Your task to perform on an android device: turn on improve location accuracy Image 0: 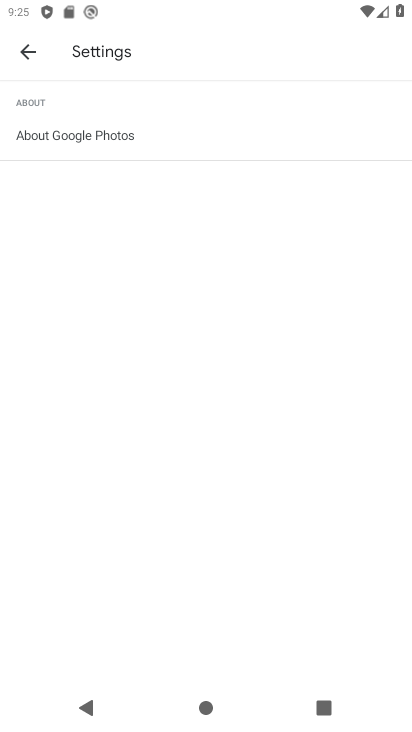
Step 0: press home button
Your task to perform on an android device: turn on improve location accuracy Image 1: 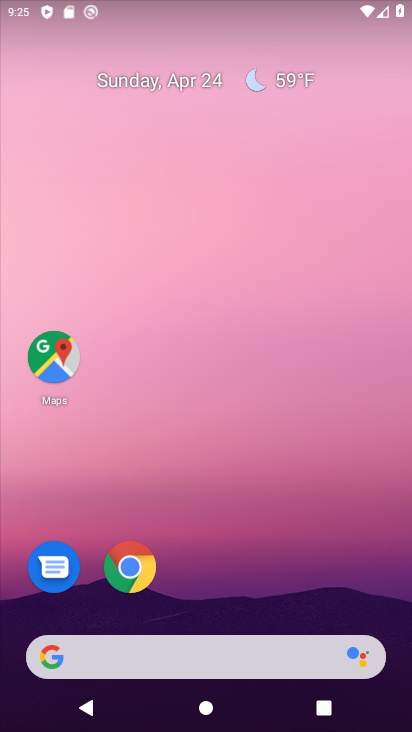
Step 1: click (345, 130)
Your task to perform on an android device: turn on improve location accuracy Image 2: 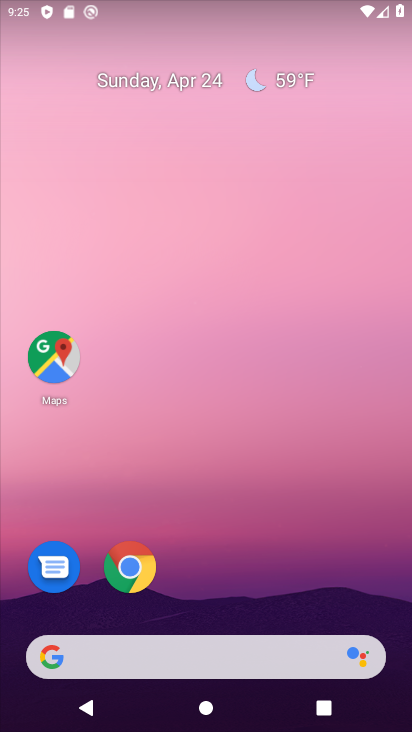
Step 2: drag from (378, 435) to (374, 206)
Your task to perform on an android device: turn on improve location accuracy Image 3: 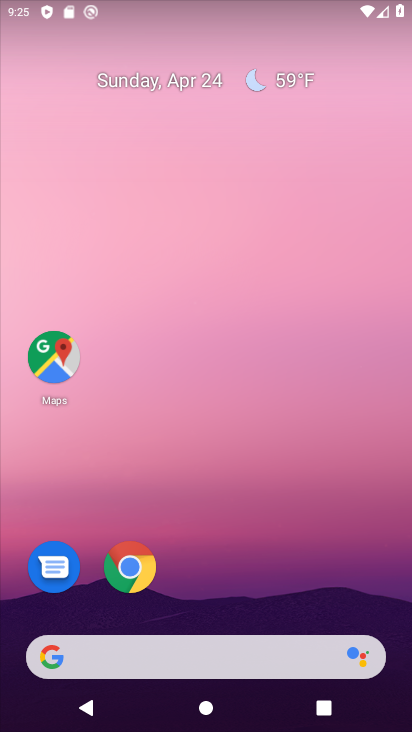
Step 3: drag from (392, 642) to (355, 100)
Your task to perform on an android device: turn on improve location accuracy Image 4: 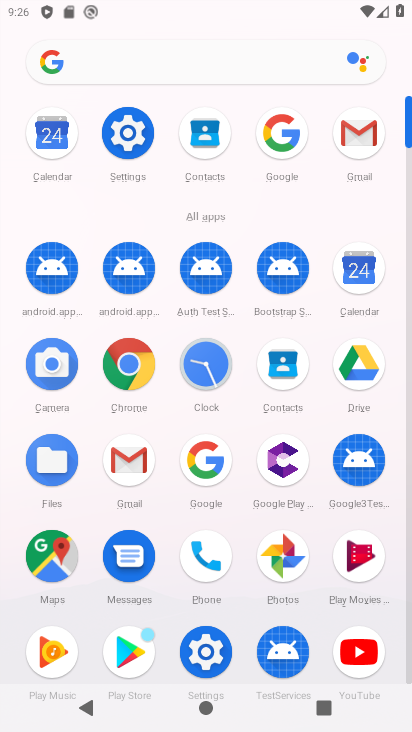
Step 4: click (110, 128)
Your task to perform on an android device: turn on improve location accuracy Image 5: 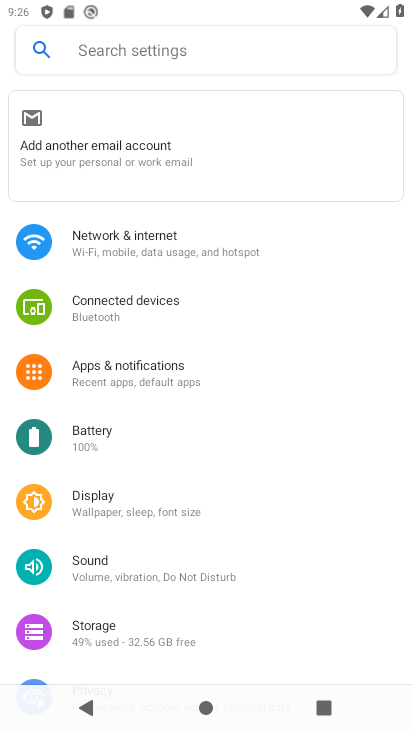
Step 5: drag from (349, 317) to (349, 211)
Your task to perform on an android device: turn on improve location accuracy Image 6: 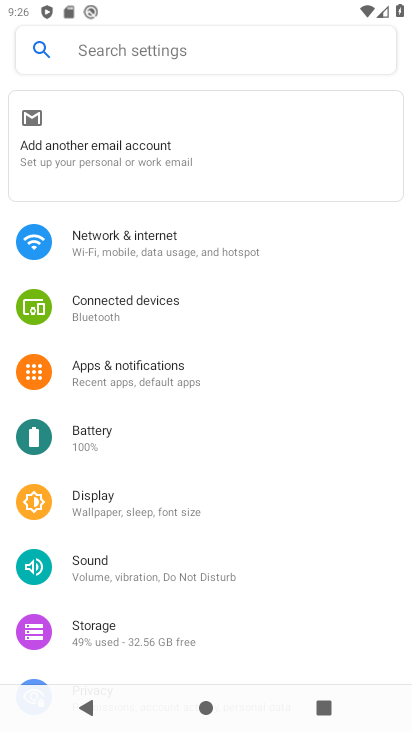
Step 6: drag from (298, 623) to (320, 268)
Your task to perform on an android device: turn on improve location accuracy Image 7: 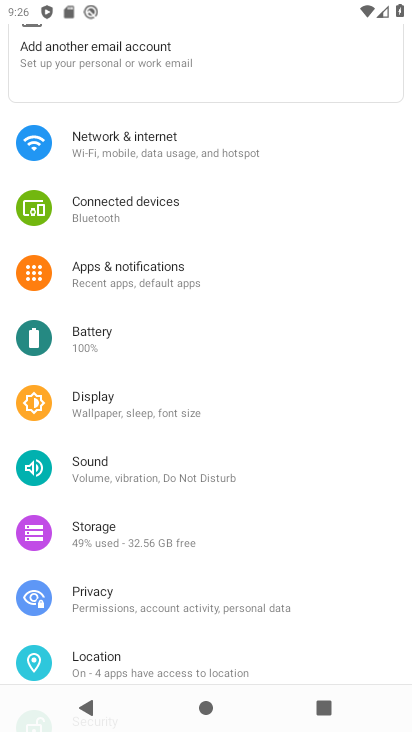
Step 7: click (86, 657)
Your task to perform on an android device: turn on improve location accuracy Image 8: 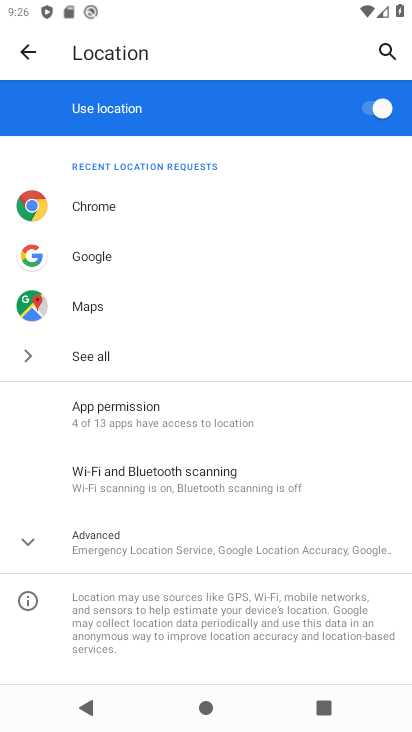
Step 8: click (16, 542)
Your task to perform on an android device: turn on improve location accuracy Image 9: 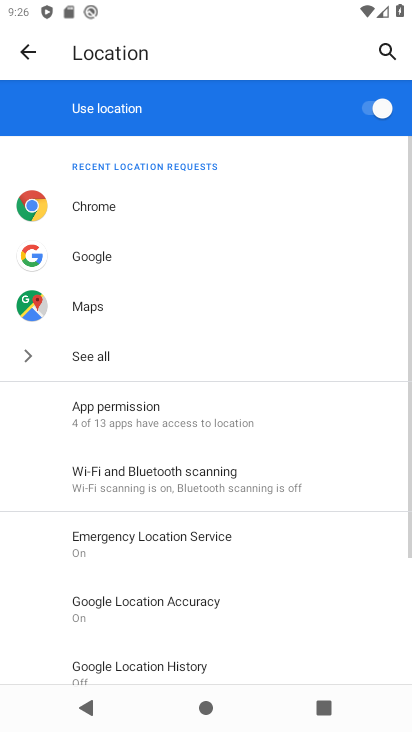
Step 9: drag from (308, 541) to (347, 267)
Your task to perform on an android device: turn on improve location accuracy Image 10: 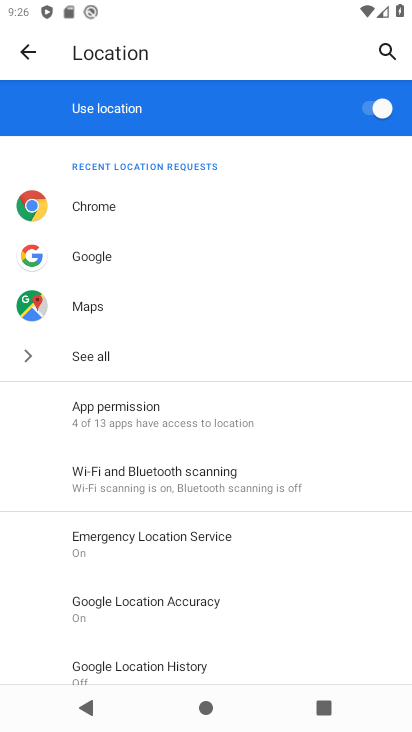
Step 10: drag from (339, 624) to (362, 262)
Your task to perform on an android device: turn on improve location accuracy Image 11: 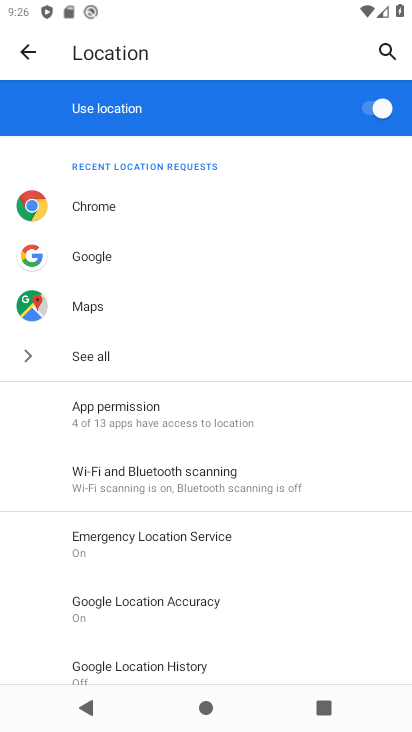
Step 11: click (348, 310)
Your task to perform on an android device: turn on improve location accuracy Image 12: 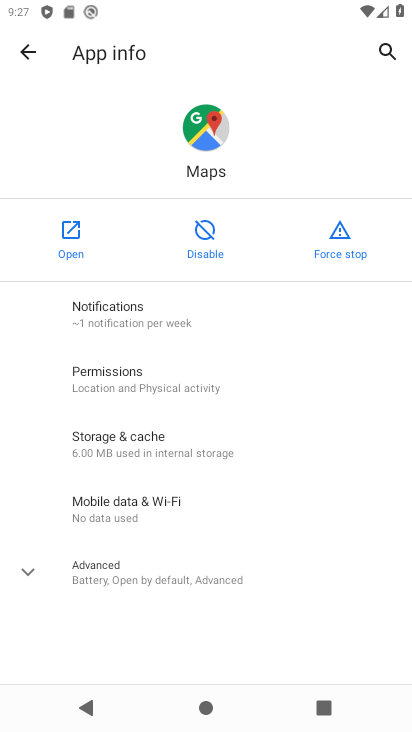
Step 12: click (74, 565)
Your task to perform on an android device: turn on improve location accuracy Image 13: 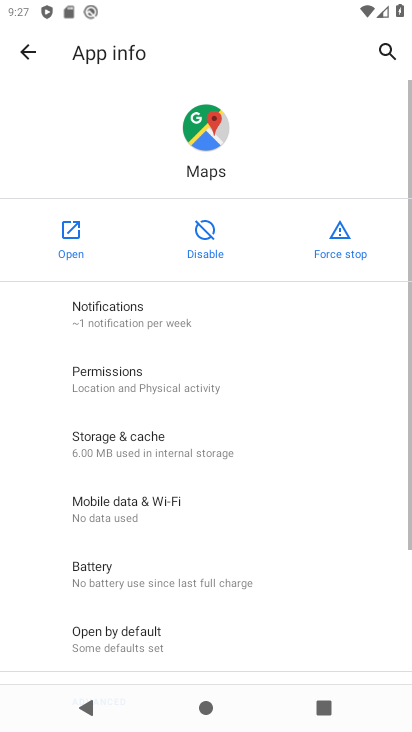
Step 13: drag from (373, 635) to (377, 356)
Your task to perform on an android device: turn on improve location accuracy Image 14: 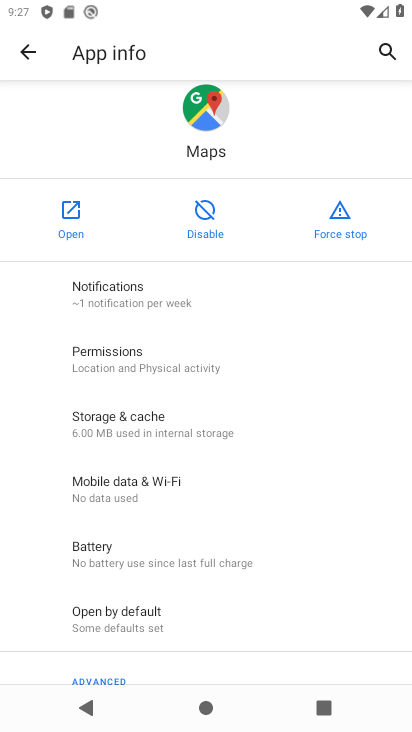
Step 14: drag from (383, 416) to (383, 340)
Your task to perform on an android device: turn on improve location accuracy Image 15: 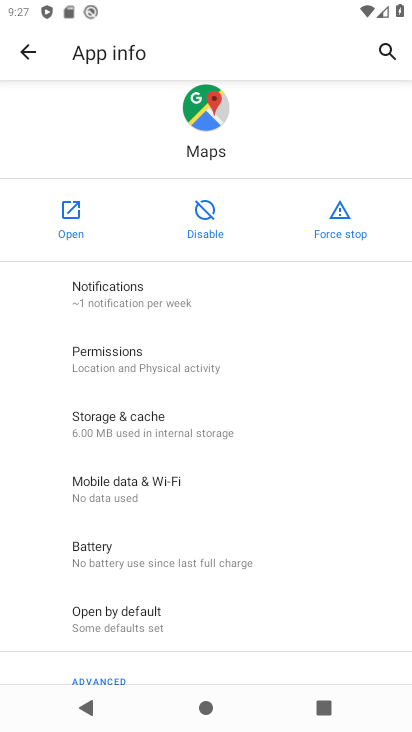
Step 15: drag from (322, 603) to (326, 365)
Your task to perform on an android device: turn on improve location accuracy Image 16: 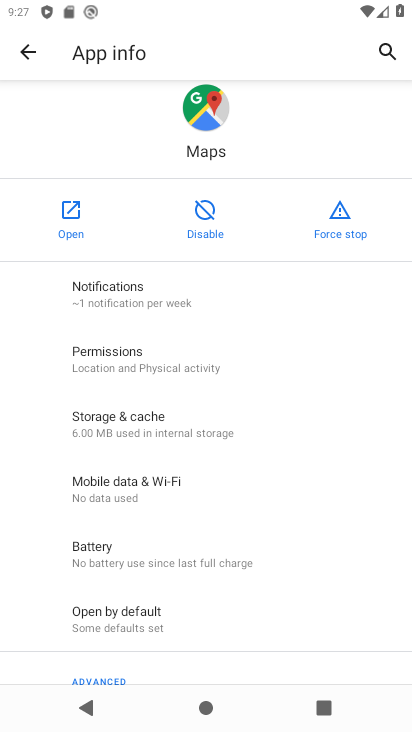
Step 16: drag from (307, 240) to (308, 203)
Your task to perform on an android device: turn on improve location accuracy Image 17: 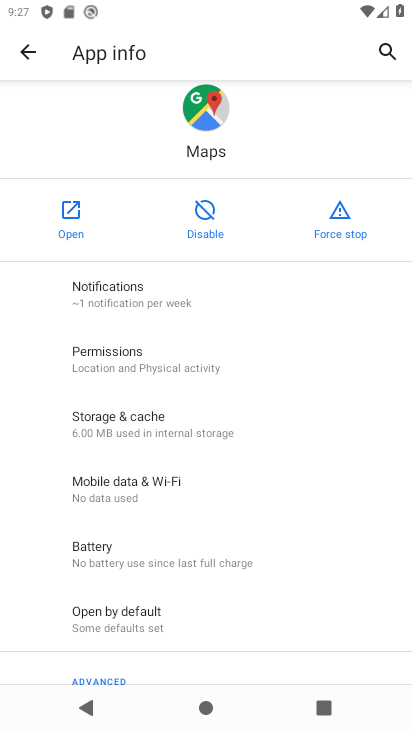
Step 17: drag from (358, 615) to (387, 356)
Your task to perform on an android device: turn on improve location accuracy Image 18: 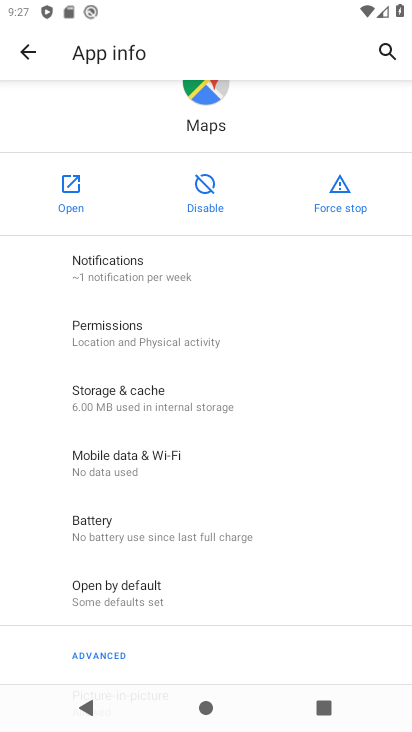
Step 18: click (99, 649)
Your task to perform on an android device: turn on improve location accuracy Image 19: 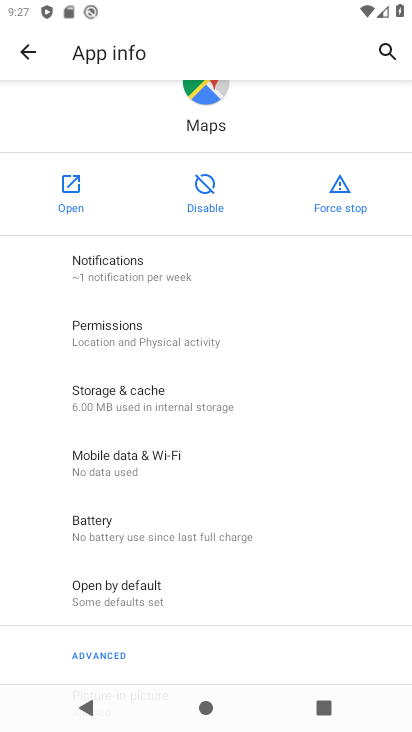
Step 19: drag from (372, 437) to (374, 396)
Your task to perform on an android device: turn on improve location accuracy Image 20: 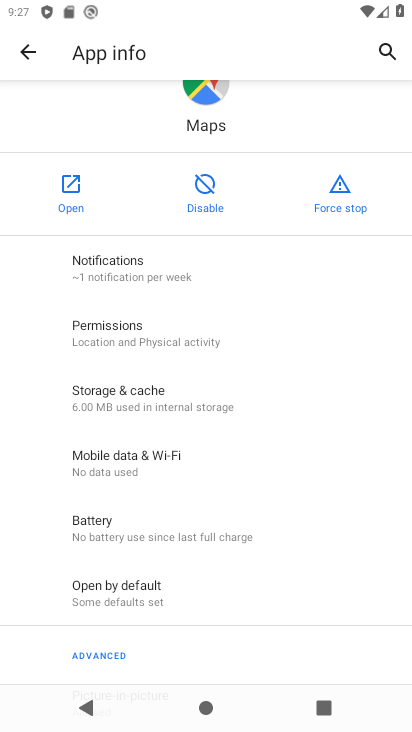
Step 20: drag from (382, 470) to (385, 312)
Your task to perform on an android device: turn on improve location accuracy Image 21: 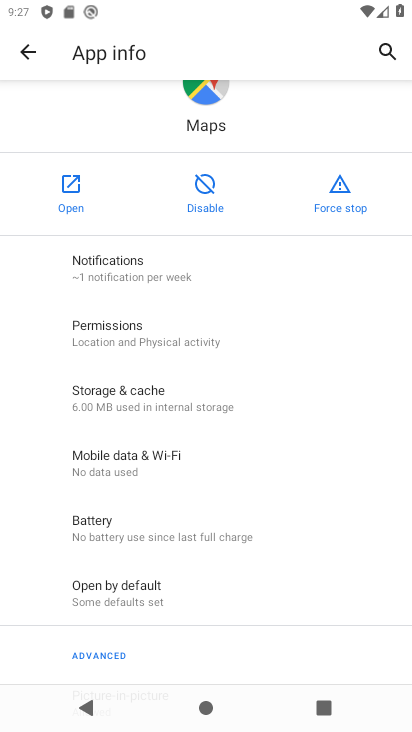
Step 21: drag from (388, 379) to (390, 325)
Your task to perform on an android device: turn on improve location accuracy Image 22: 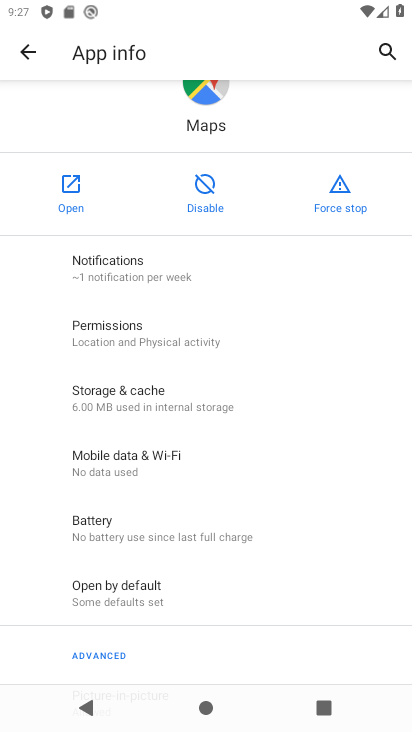
Step 22: drag from (350, 603) to (358, 336)
Your task to perform on an android device: turn on improve location accuracy Image 23: 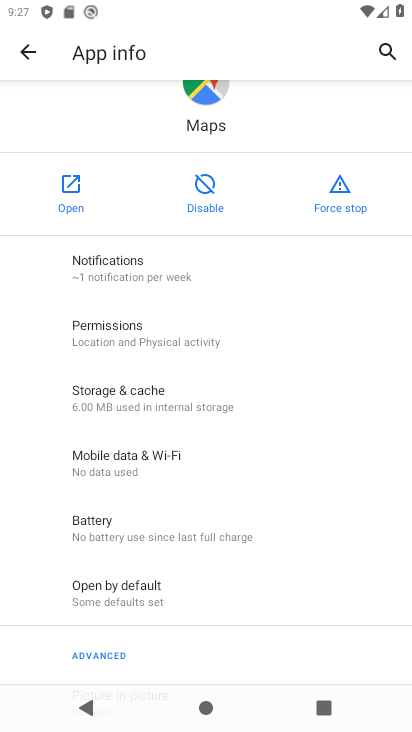
Step 23: press back button
Your task to perform on an android device: turn on improve location accuracy Image 24: 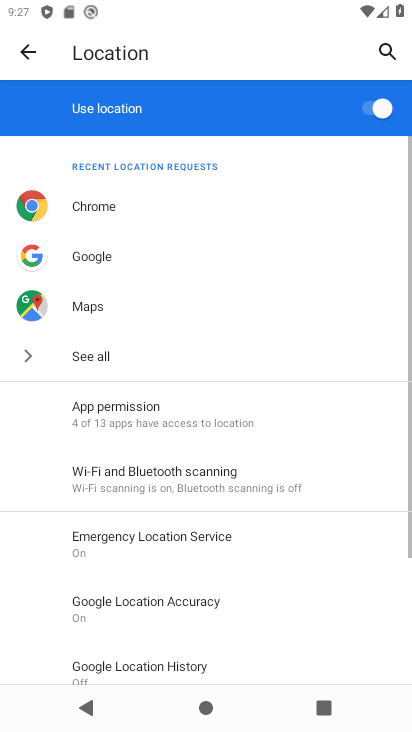
Step 24: drag from (327, 479) to (353, 369)
Your task to perform on an android device: turn on improve location accuracy Image 25: 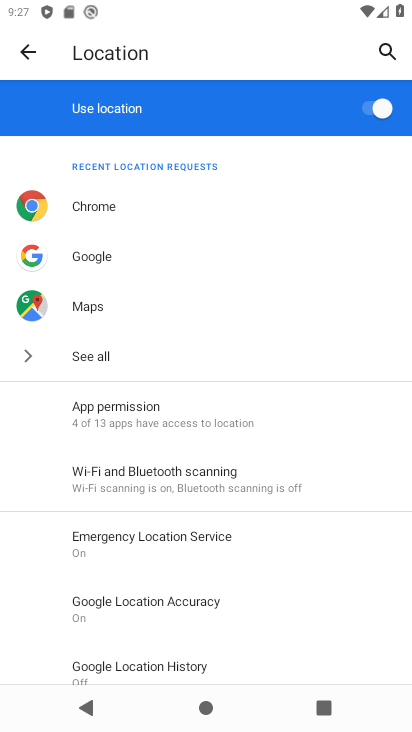
Step 25: click (158, 601)
Your task to perform on an android device: turn on improve location accuracy Image 26: 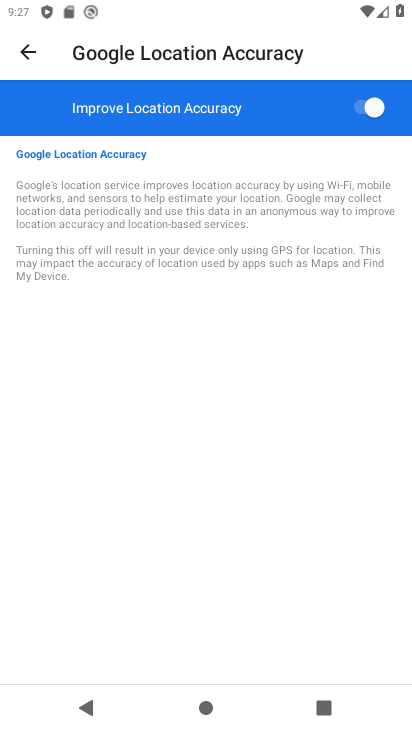
Step 26: task complete